Your task to perform on an android device: Open accessibility settings Image 0: 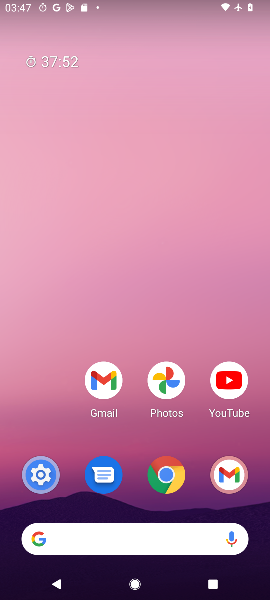
Step 0: press home button
Your task to perform on an android device: Open accessibility settings Image 1: 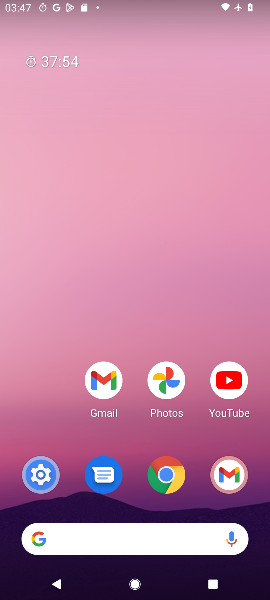
Step 1: drag from (60, 405) to (62, 206)
Your task to perform on an android device: Open accessibility settings Image 2: 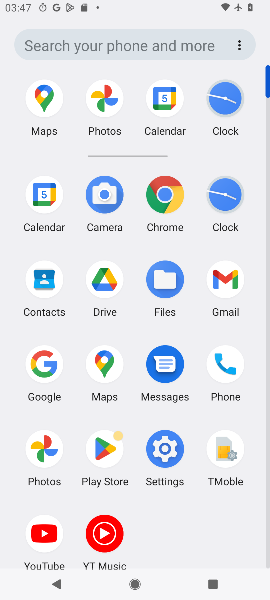
Step 2: click (160, 452)
Your task to perform on an android device: Open accessibility settings Image 3: 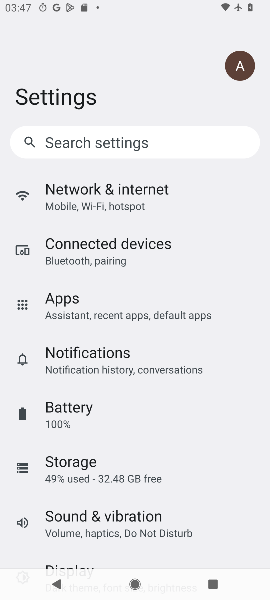
Step 3: drag from (210, 491) to (209, 396)
Your task to perform on an android device: Open accessibility settings Image 4: 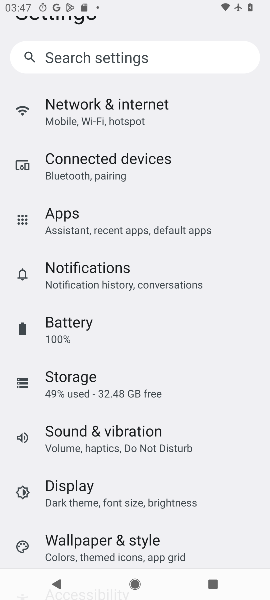
Step 4: drag from (221, 475) to (229, 407)
Your task to perform on an android device: Open accessibility settings Image 5: 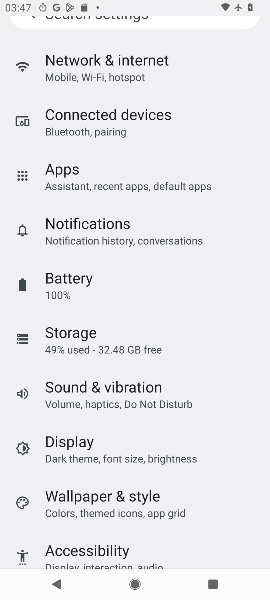
Step 5: drag from (225, 507) to (228, 431)
Your task to perform on an android device: Open accessibility settings Image 6: 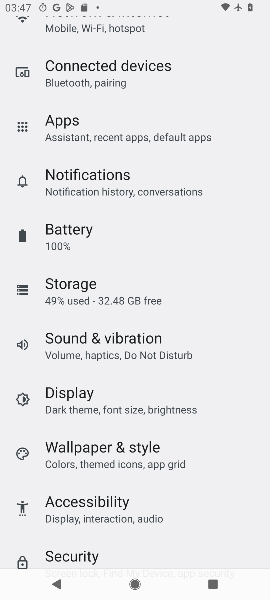
Step 6: drag from (225, 515) to (229, 419)
Your task to perform on an android device: Open accessibility settings Image 7: 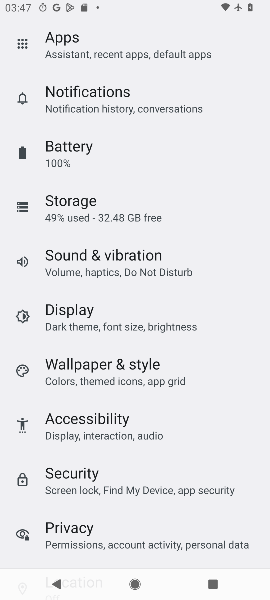
Step 7: drag from (198, 448) to (209, 333)
Your task to perform on an android device: Open accessibility settings Image 8: 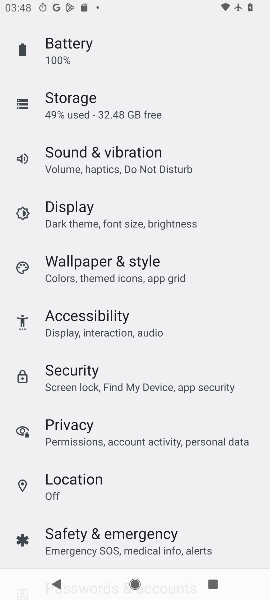
Step 8: click (196, 330)
Your task to perform on an android device: Open accessibility settings Image 9: 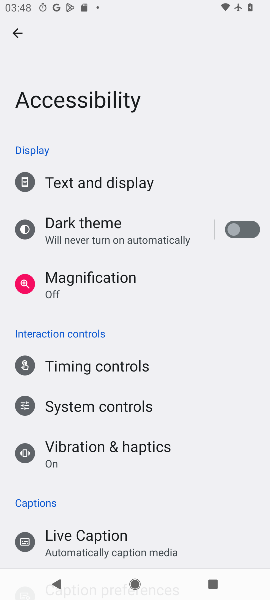
Step 9: task complete